Your task to perform on an android device: turn on the 24-hour format for clock Image 0: 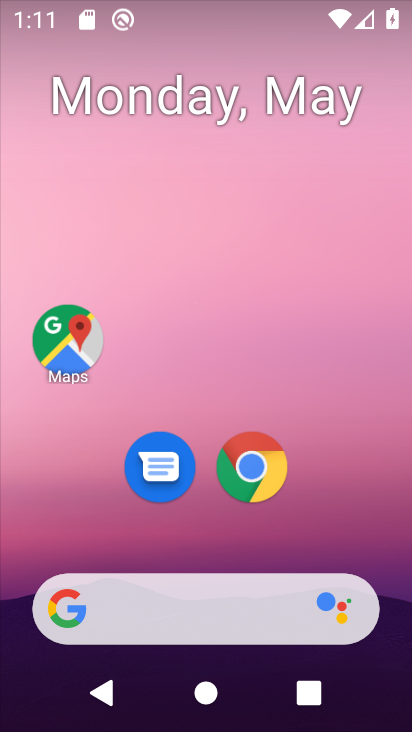
Step 0: drag from (209, 573) to (175, 25)
Your task to perform on an android device: turn on the 24-hour format for clock Image 1: 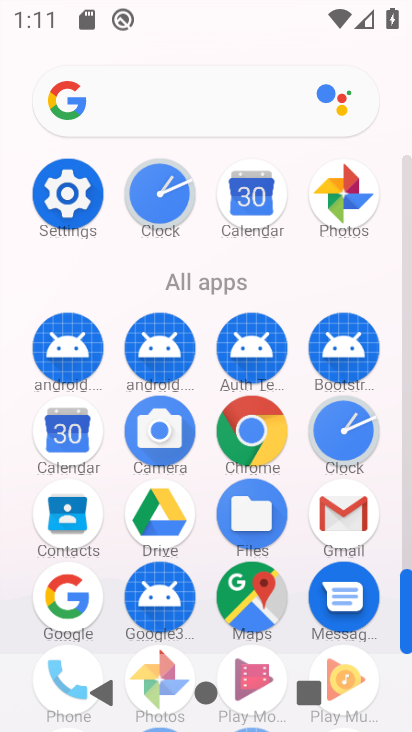
Step 1: click (339, 428)
Your task to perform on an android device: turn on the 24-hour format for clock Image 2: 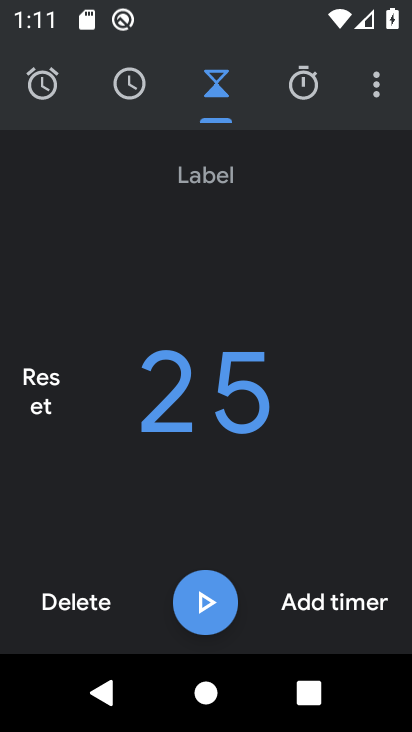
Step 2: click (385, 81)
Your task to perform on an android device: turn on the 24-hour format for clock Image 3: 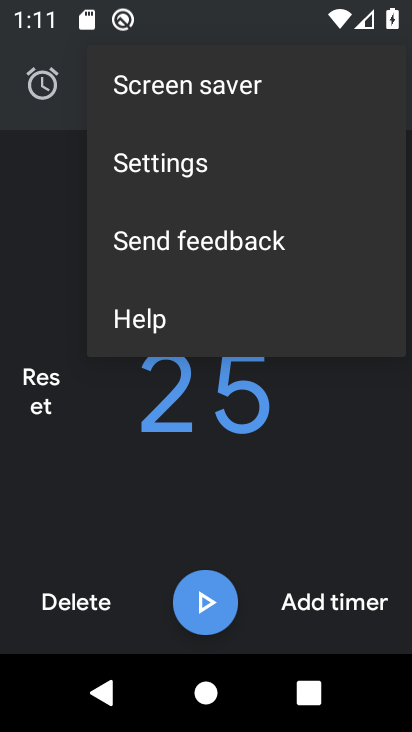
Step 3: click (185, 147)
Your task to perform on an android device: turn on the 24-hour format for clock Image 4: 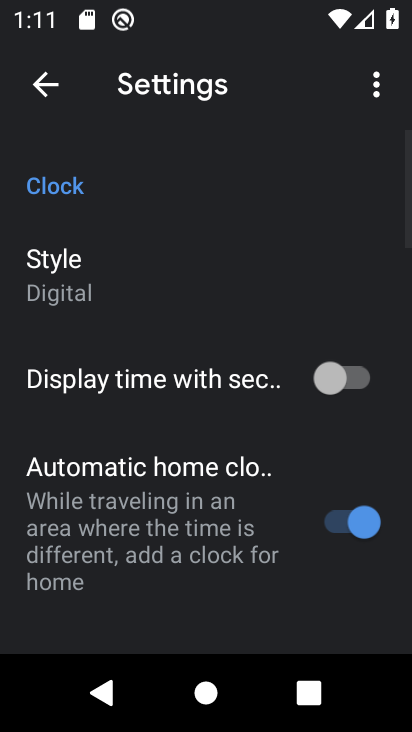
Step 4: drag from (203, 499) to (156, 149)
Your task to perform on an android device: turn on the 24-hour format for clock Image 5: 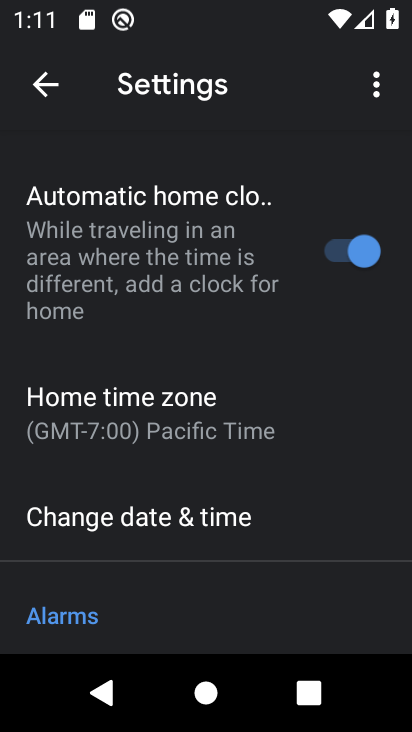
Step 5: click (134, 509)
Your task to perform on an android device: turn on the 24-hour format for clock Image 6: 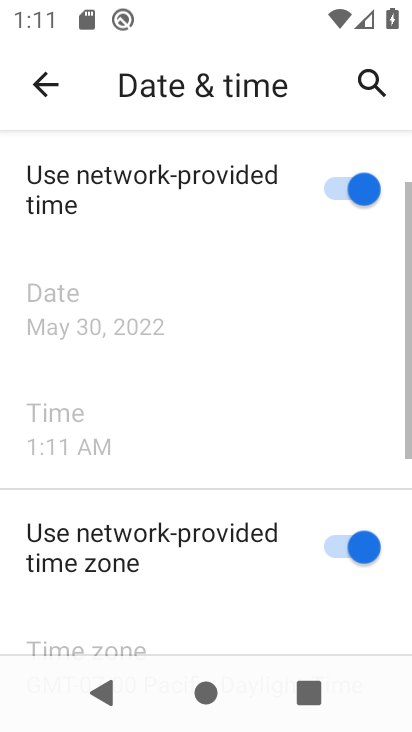
Step 6: drag from (192, 523) to (184, 78)
Your task to perform on an android device: turn on the 24-hour format for clock Image 7: 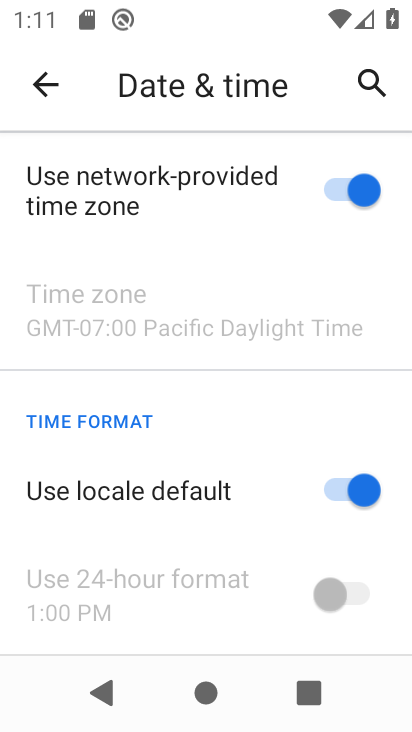
Step 7: click (343, 477)
Your task to perform on an android device: turn on the 24-hour format for clock Image 8: 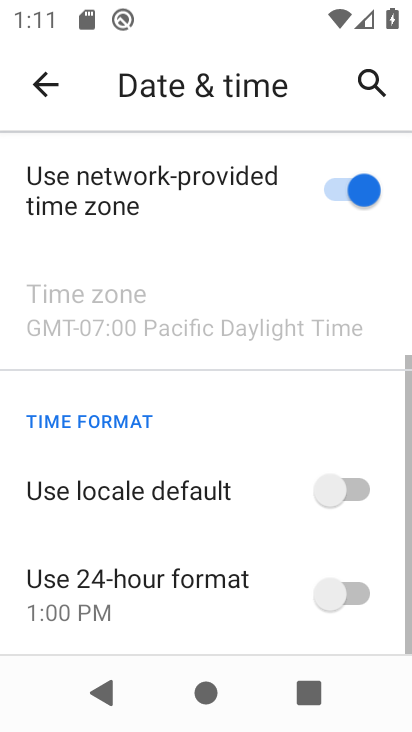
Step 8: click (347, 602)
Your task to perform on an android device: turn on the 24-hour format for clock Image 9: 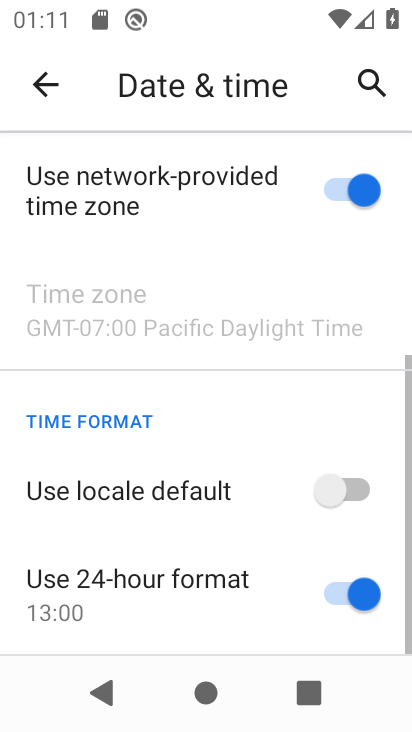
Step 9: task complete